Your task to perform on an android device: Open settings on Google Maps Image 0: 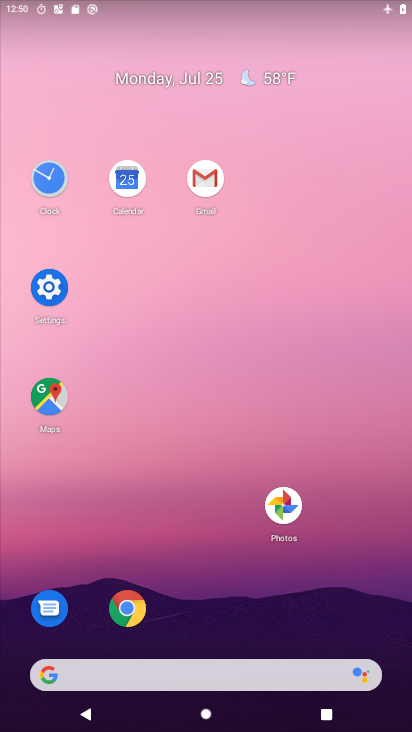
Step 0: click (36, 401)
Your task to perform on an android device: Open settings on Google Maps Image 1: 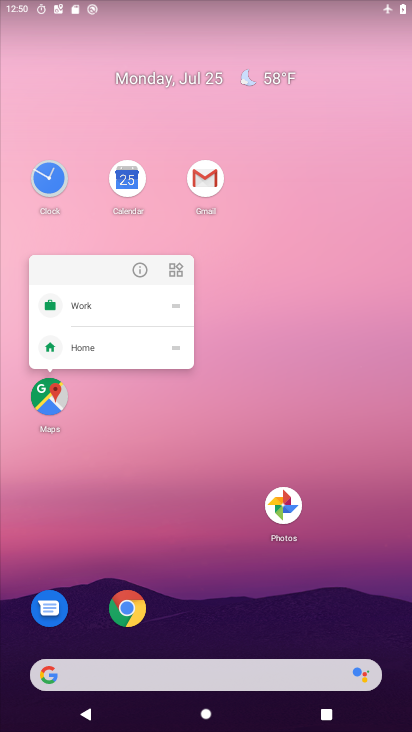
Step 1: click (57, 404)
Your task to perform on an android device: Open settings on Google Maps Image 2: 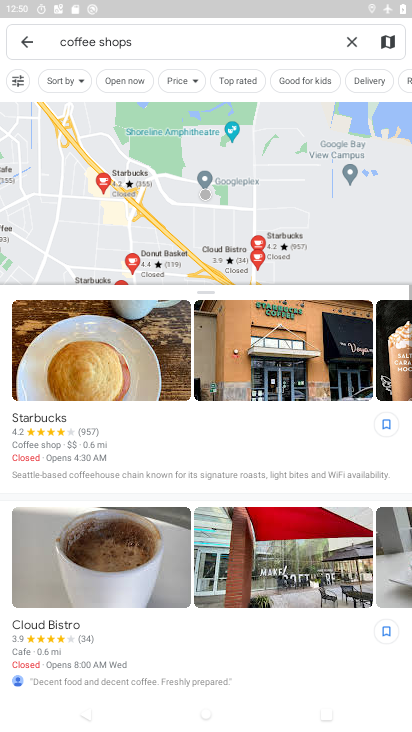
Step 2: click (32, 39)
Your task to perform on an android device: Open settings on Google Maps Image 3: 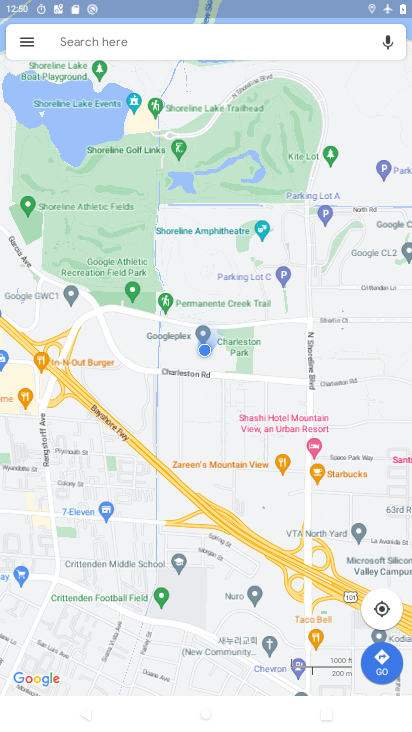
Step 3: click (32, 46)
Your task to perform on an android device: Open settings on Google Maps Image 4: 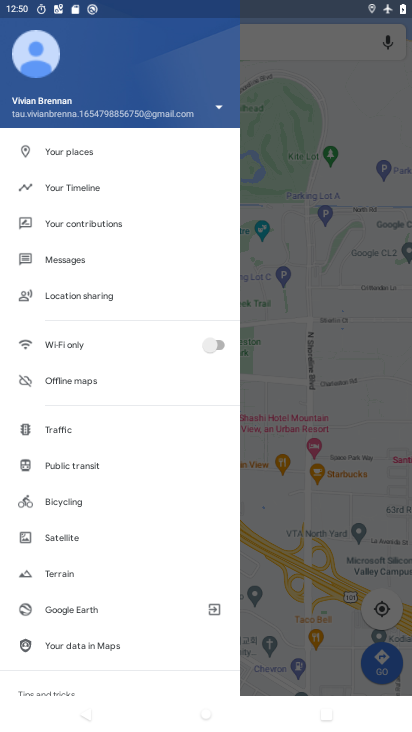
Step 4: drag from (106, 440) to (129, 148)
Your task to perform on an android device: Open settings on Google Maps Image 5: 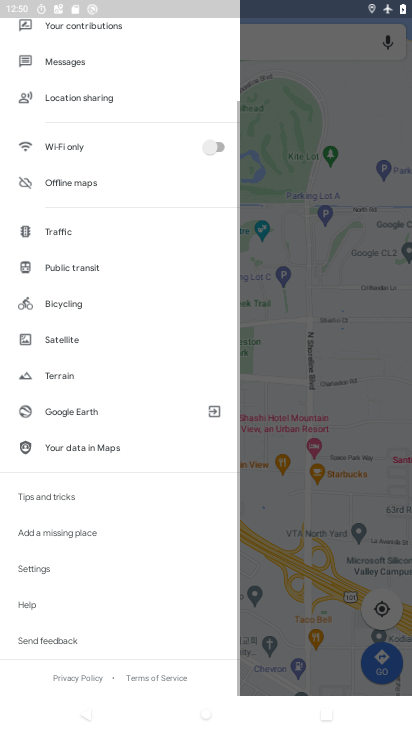
Step 5: click (52, 564)
Your task to perform on an android device: Open settings on Google Maps Image 6: 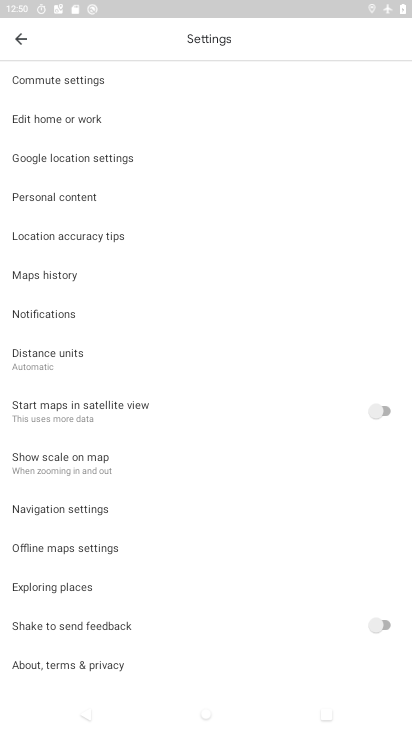
Step 6: task complete